Your task to perform on an android device: Go to ESPN.com Image 0: 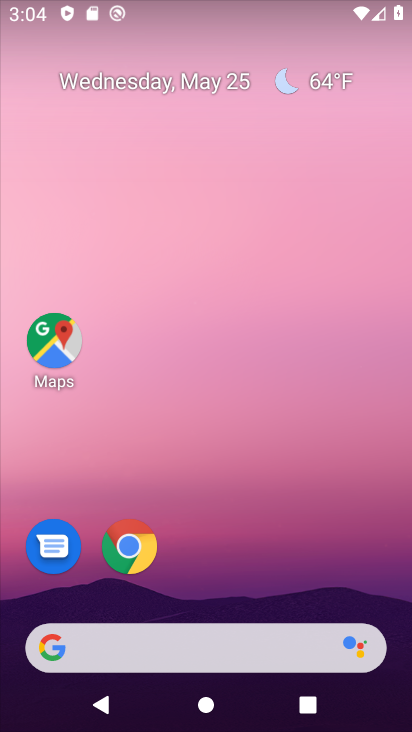
Step 0: click (121, 569)
Your task to perform on an android device: Go to ESPN.com Image 1: 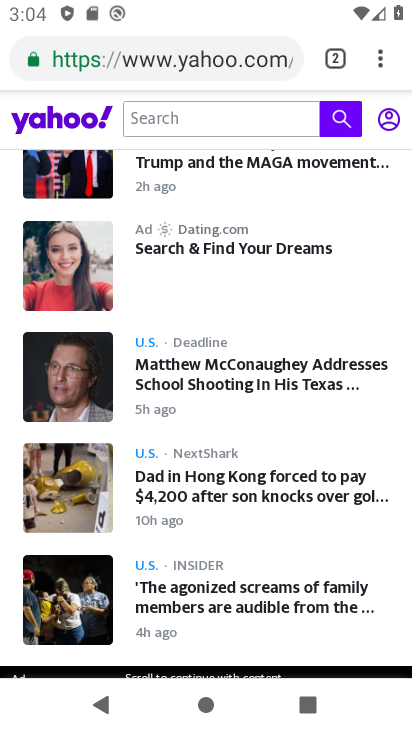
Step 1: click (338, 65)
Your task to perform on an android device: Go to ESPN.com Image 2: 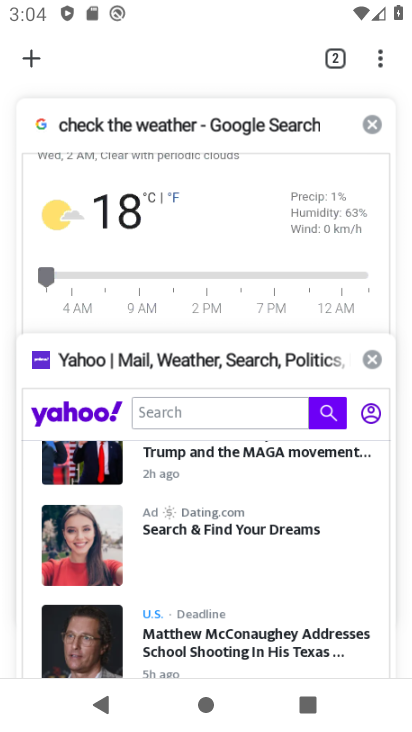
Step 2: click (38, 70)
Your task to perform on an android device: Go to ESPN.com Image 3: 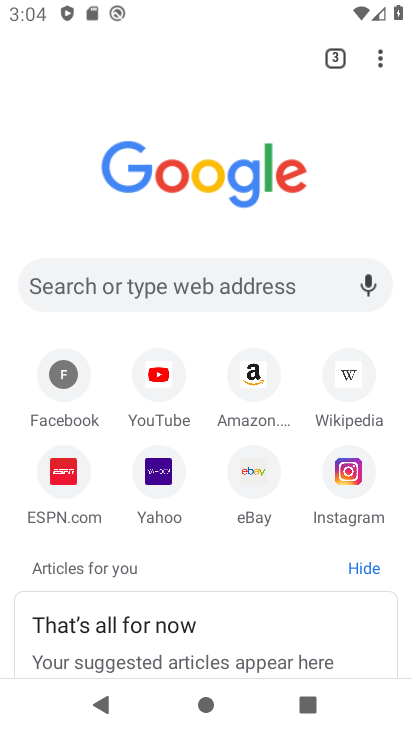
Step 3: click (71, 474)
Your task to perform on an android device: Go to ESPN.com Image 4: 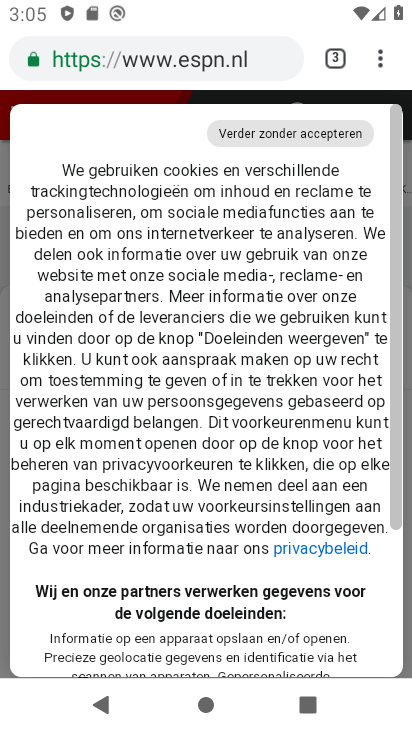
Step 4: drag from (397, 499) to (396, 693)
Your task to perform on an android device: Go to ESPN.com Image 5: 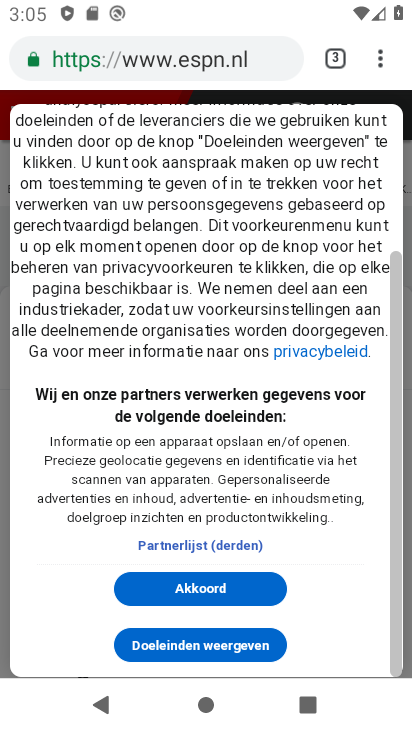
Step 5: click (260, 602)
Your task to perform on an android device: Go to ESPN.com Image 6: 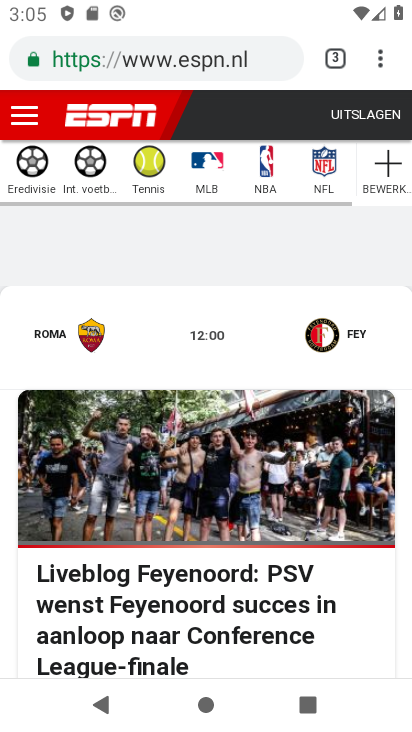
Step 6: task complete